Your task to perform on an android device: check storage Image 0: 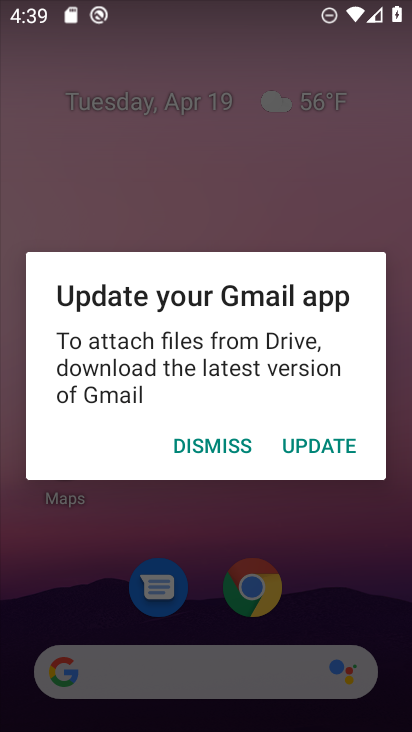
Step 0: press home button
Your task to perform on an android device: check storage Image 1: 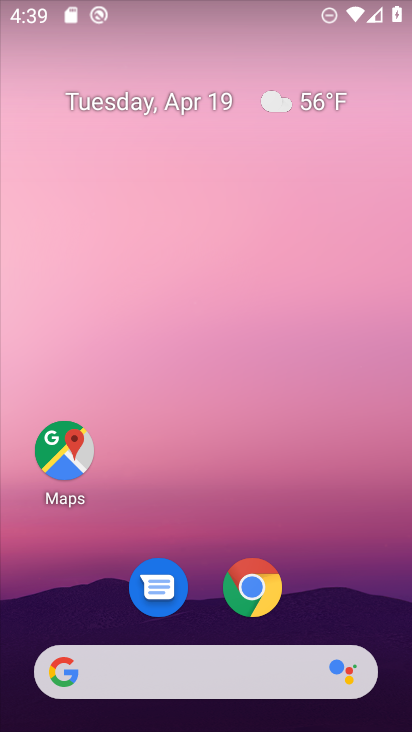
Step 1: drag from (197, 691) to (197, 26)
Your task to perform on an android device: check storage Image 2: 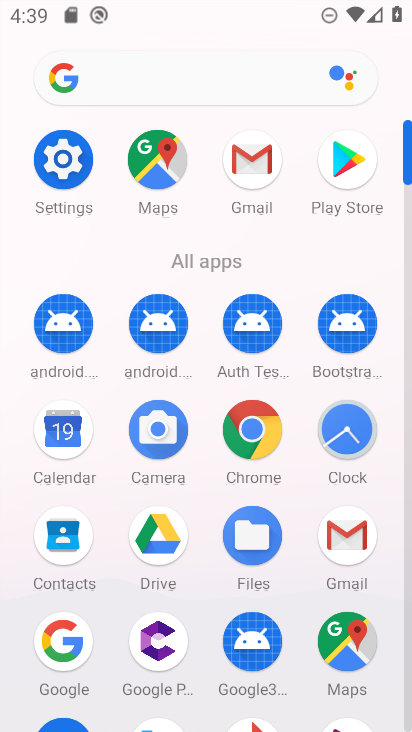
Step 2: click (65, 157)
Your task to perform on an android device: check storage Image 3: 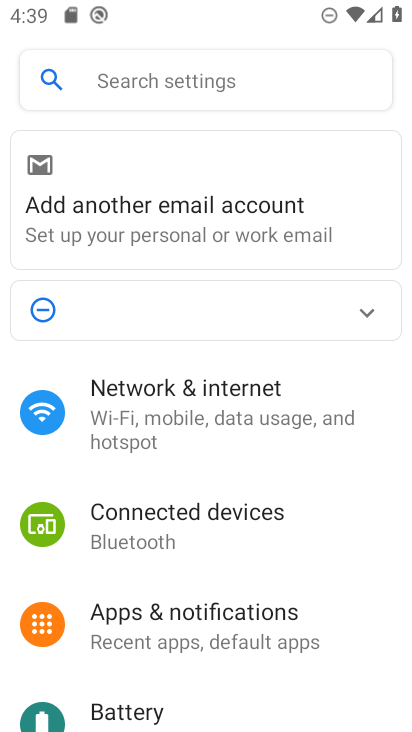
Step 3: drag from (206, 688) to (215, 236)
Your task to perform on an android device: check storage Image 4: 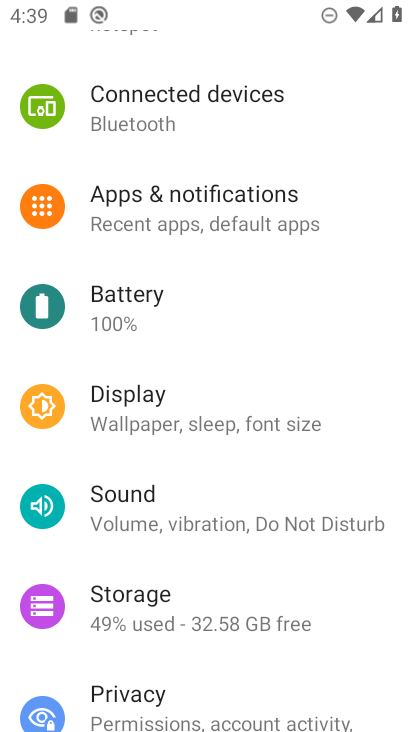
Step 4: click (145, 612)
Your task to perform on an android device: check storage Image 5: 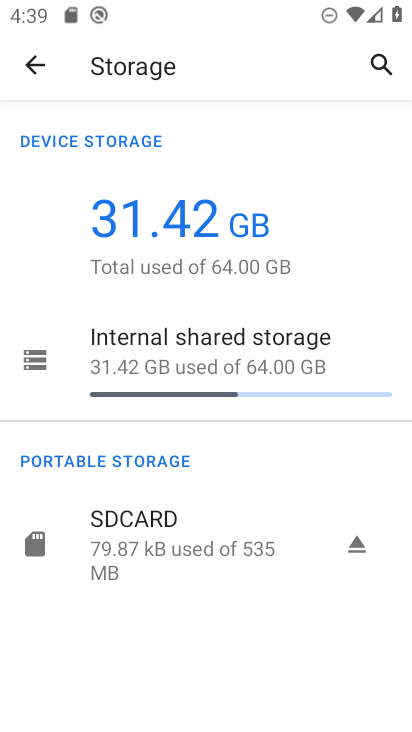
Step 5: task complete